Your task to perform on an android device: Open network settings Image 0: 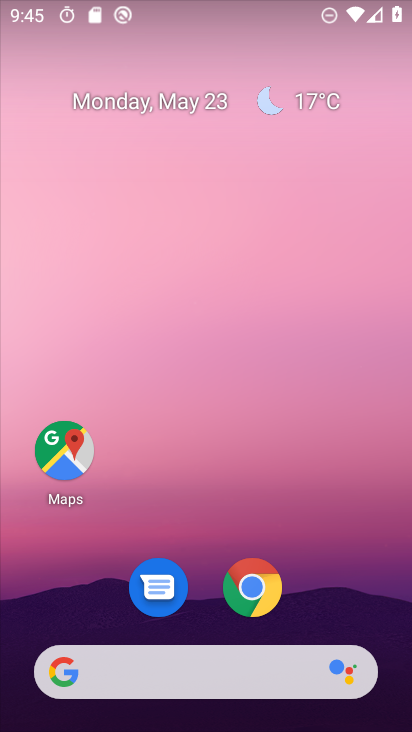
Step 0: drag from (195, 552) to (256, 30)
Your task to perform on an android device: Open network settings Image 1: 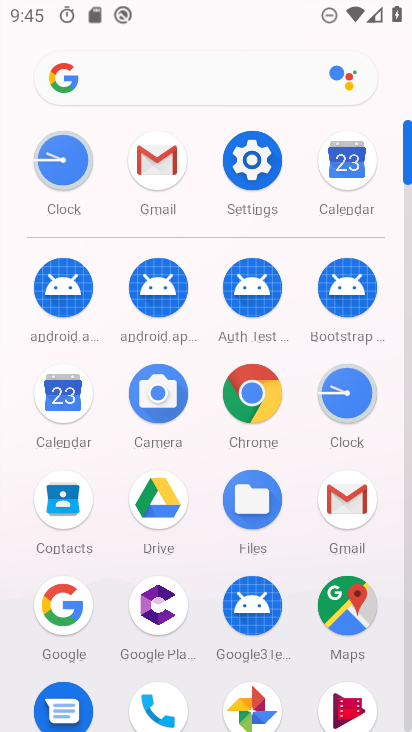
Step 1: click (237, 158)
Your task to perform on an android device: Open network settings Image 2: 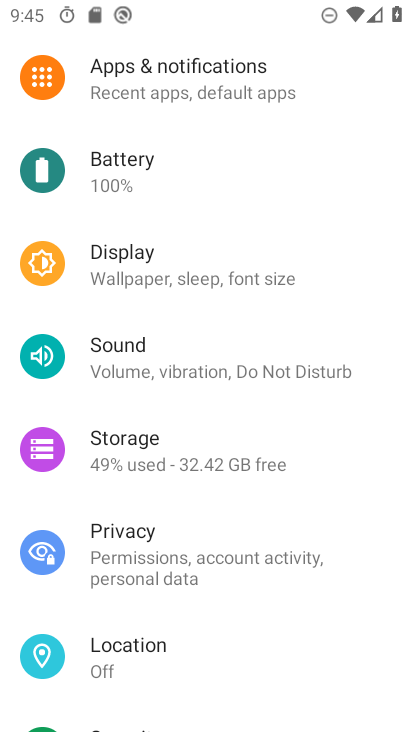
Step 2: drag from (229, 170) to (223, 592)
Your task to perform on an android device: Open network settings Image 3: 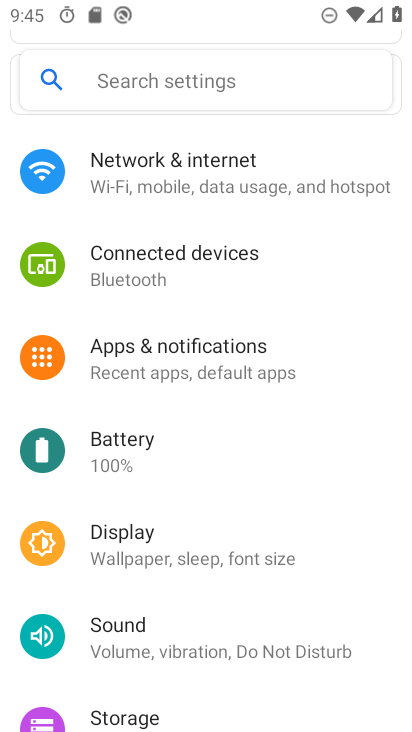
Step 3: click (198, 170)
Your task to perform on an android device: Open network settings Image 4: 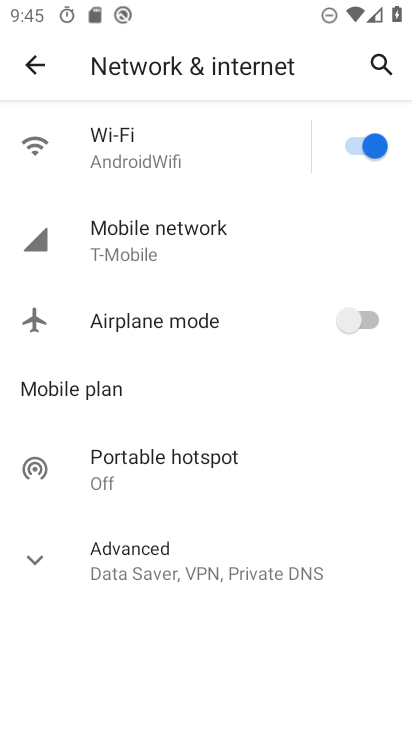
Step 4: task complete